Your task to perform on an android device: Go to Amazon Image 0: 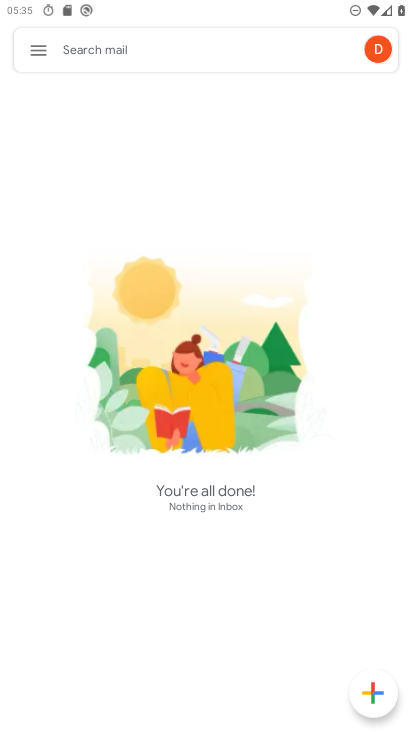
Step 0: press home button
Your task to perform on an android device: Go to Amazon Image 1: 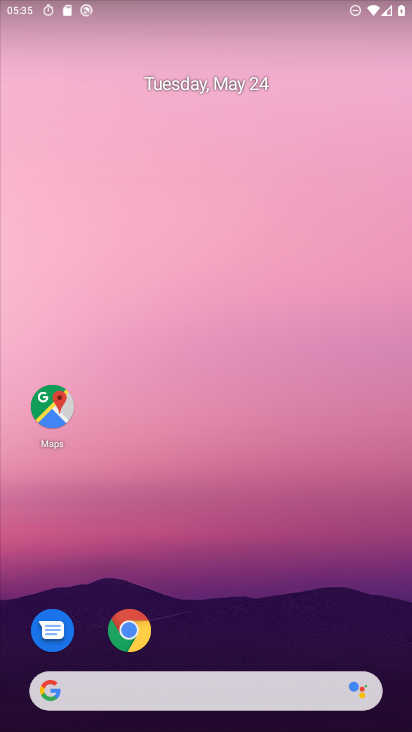
Step 1: click (133, 618)
Your task to perform on an android device: Go to Amazon Image 2: 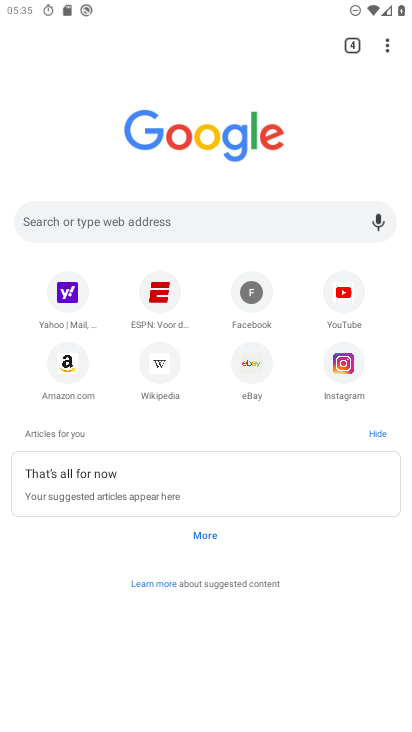
Step 2: click (63, 367)
Your task to perform on an android device: Go to Amazon Image 3: 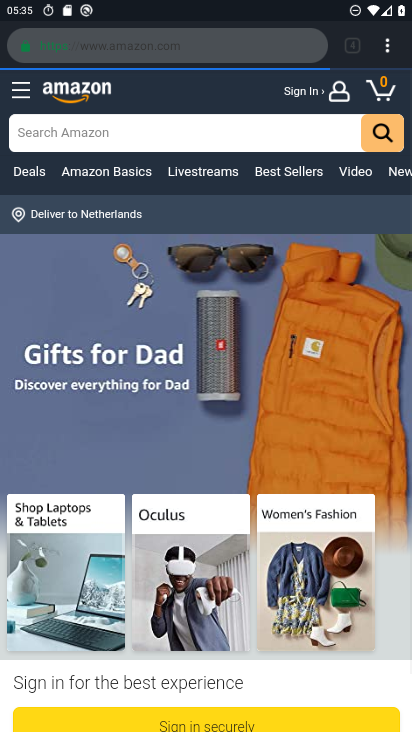
Step 3: task complete